Your task to perform on an android device: turn on wifi Image 0: 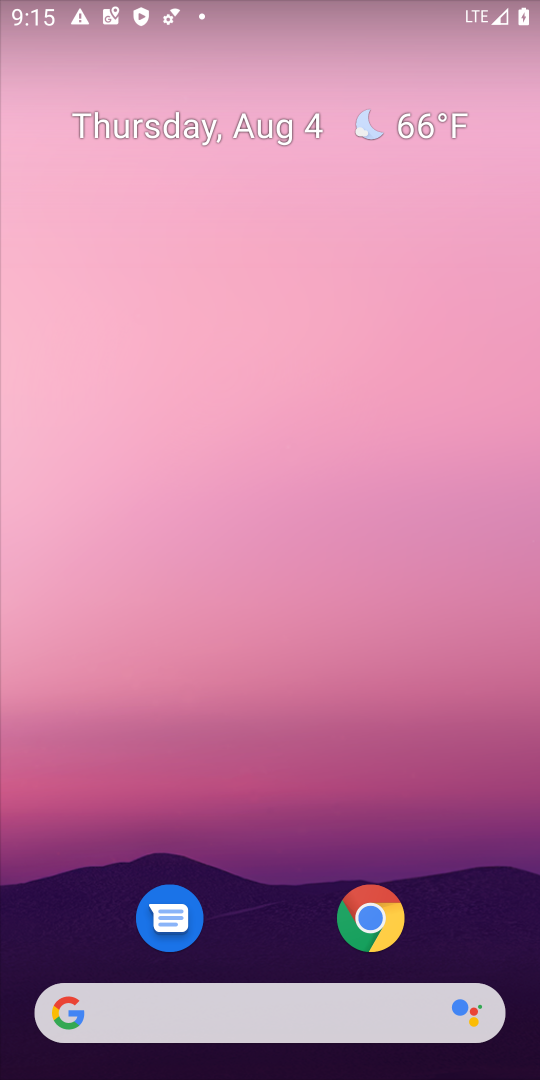
Step 0: press home button
Your task to perform on an android device: turn on wifi Image 1: 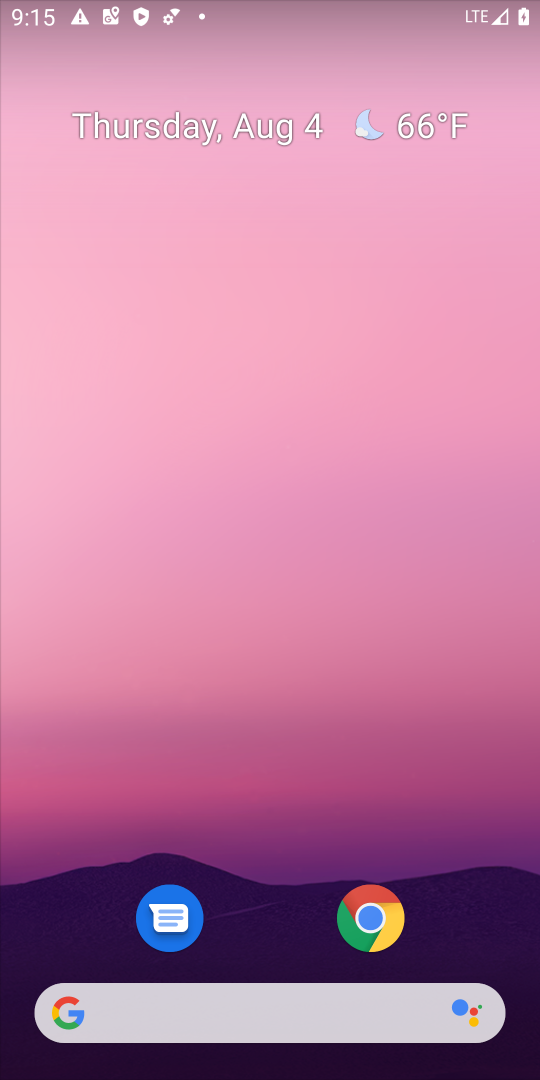
Step 1: drag from (252, 8) to (273, 828)
Your task to perform on an android device: turn on wifi Image 2: 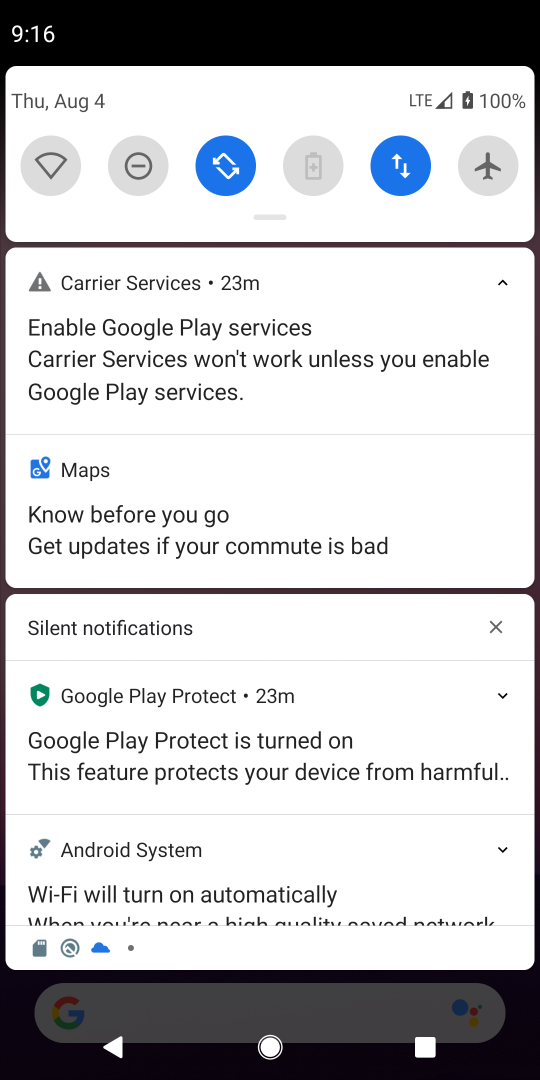
Step 2: click (48, 161)
Your task to perform on an android device: turn on wifi Image 3: 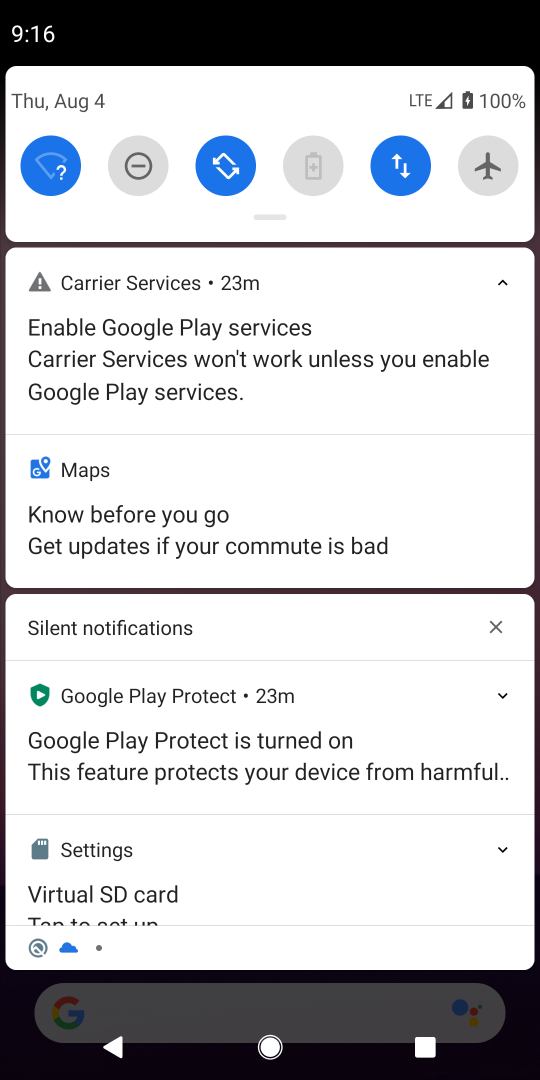
Step 3: task complete